Your task to perform on an android device: change timer sound Image 0: 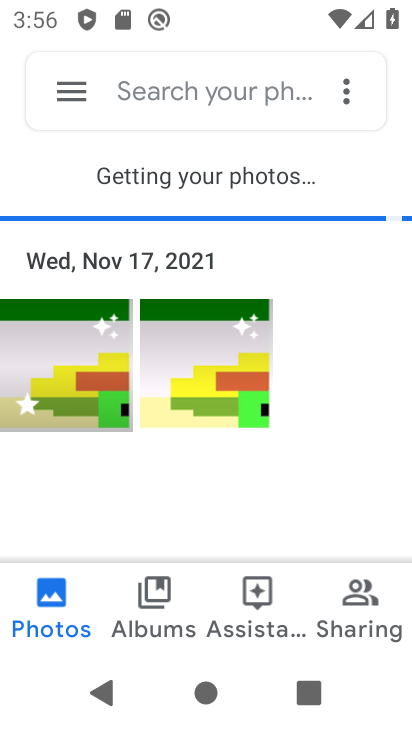
Step 0: press home button
Your task to perform on an android device: change timer sound Image 1: 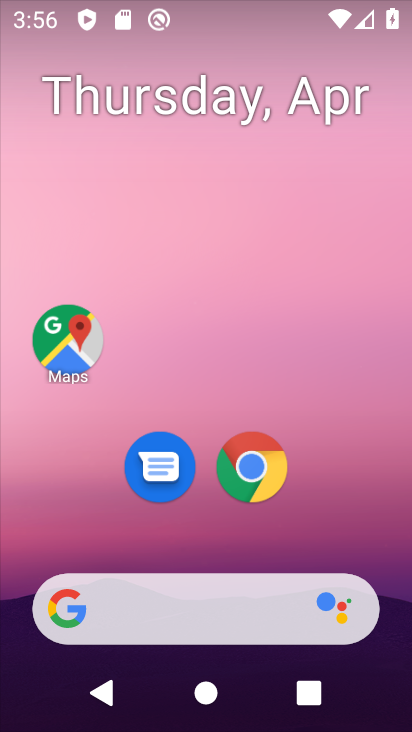
Step 1: drag from (222, 546) to (294, 81)
Your task to perform on an android device: change timer sound Image 2: 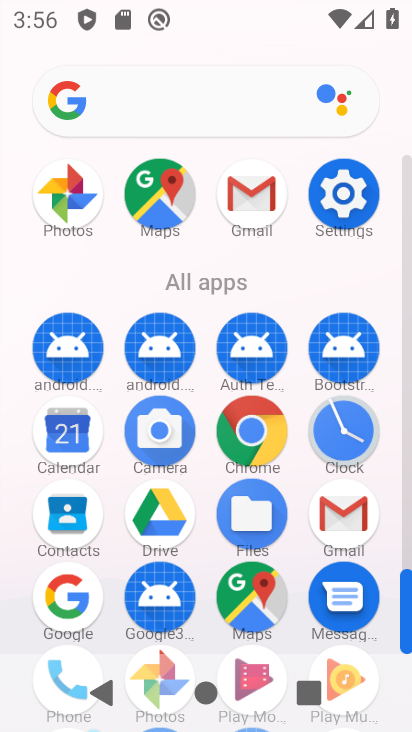
Step 2: click (354, 440)
Your task to perform on an android device: change timer sound Image 3: 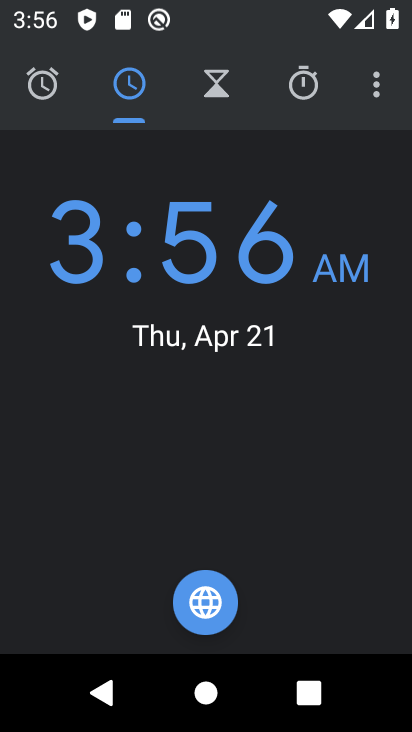
Step 3: click (365, 83)
Your task to perform on an android device: change timer sound Image 4: 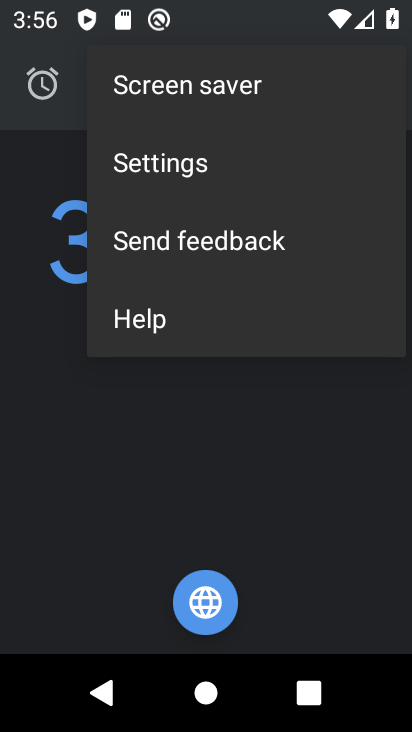
Step 4: click (166, 168)
Your task to perform on an android device: change timer sound Image 5: 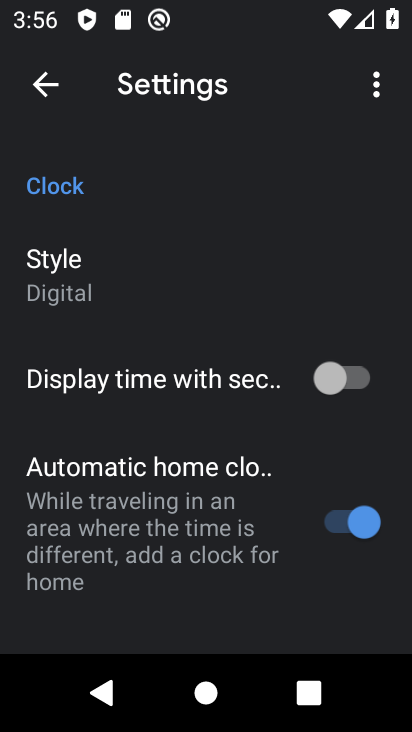
Step 5: drag from (117, 524) to (188, 244)
Your task to perform on an android device: change timer sound Image 6: 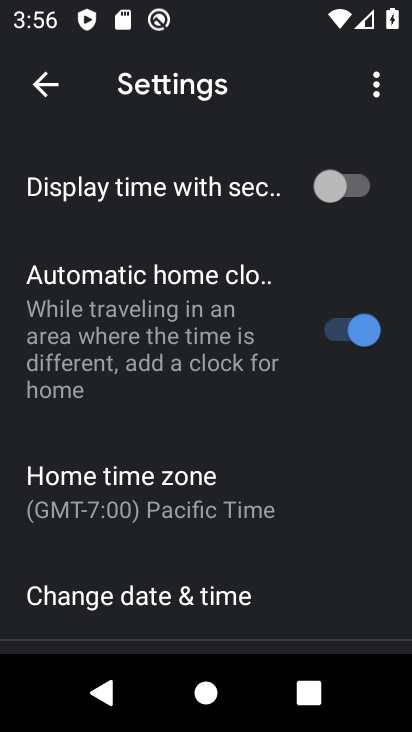
Step 6: drag from (127, 562) to (198, 115)
Your task to perform on an android device: change timer sound Image 7: 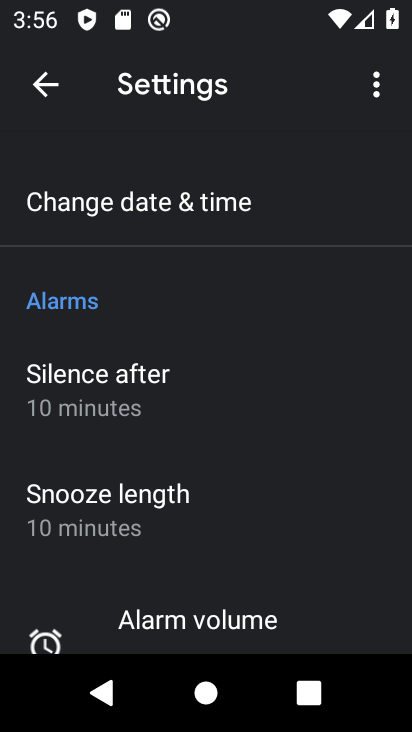
Step 7: drag from (114, 542) to (235, 101)
Your task to perform on an android device: change timer sound Image 8: 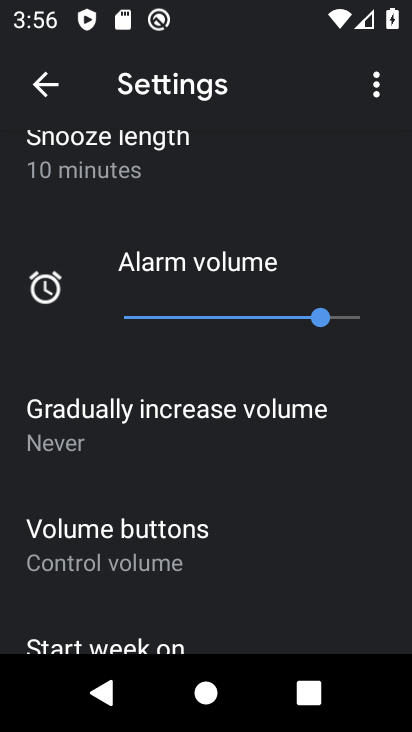
Step 8: drag from (201, 539) to (276, 164)
Your task to perform on an android device: change timer sound Image 9: 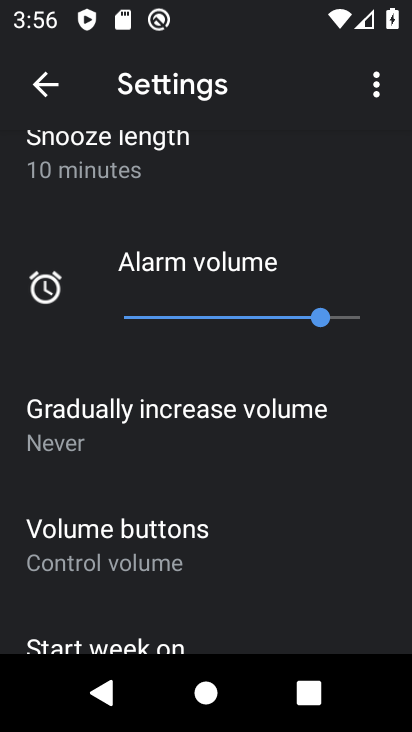
Step 9: drag from (187, 496) to (242, 194)
Your task to perform on an android device: change timer sound Image 10: 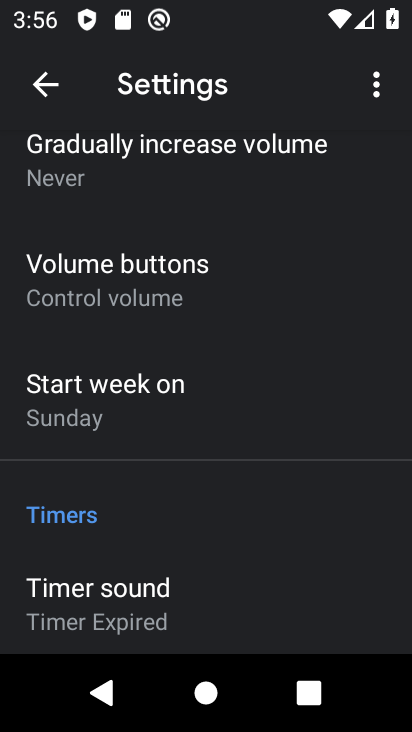
Step 10: click (91, 584)
Your task to perform on an android device: change timer sound Image 11: 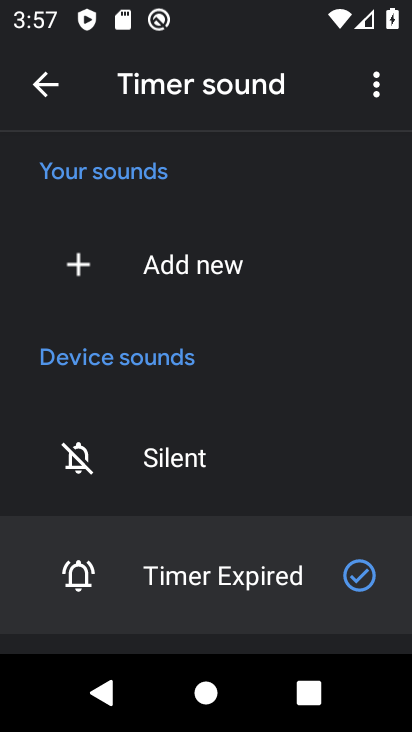
Step 11: drag from (184, 597) to (246, 296)
Your task to perform on an android device: change timer sound Image 12: 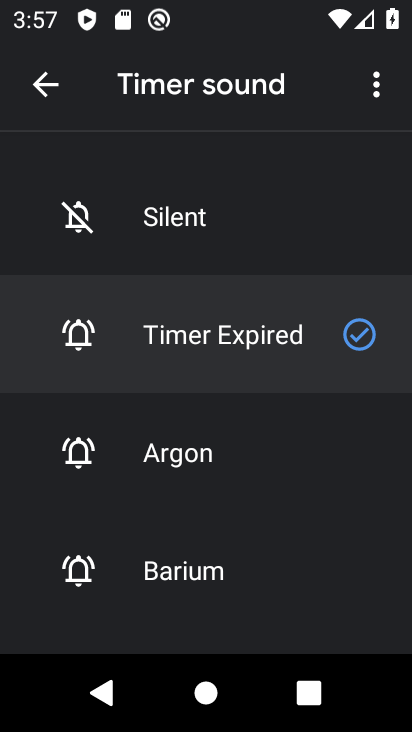
Step 12: click (183, 568)
Your task to perform on an android device: change timer sound Image 13: 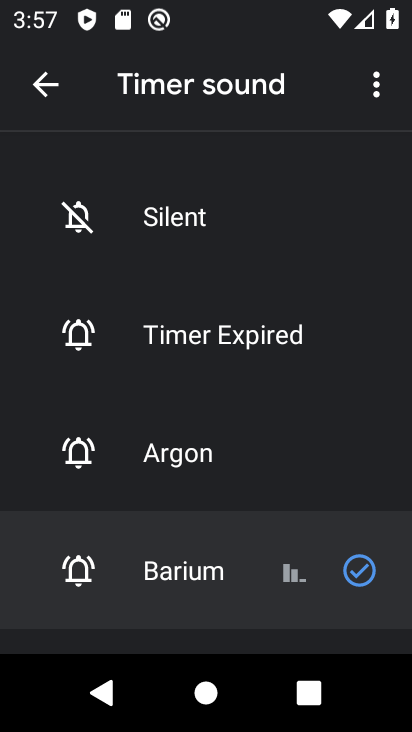
Step 13: task complete